Your task to perform on an android device: open a bookmark in the chrome app Image 0: 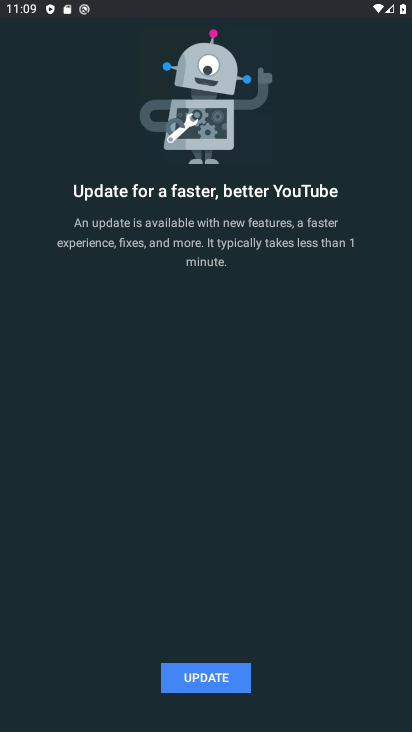
Step 0: press back button
Your task to perform on an android device: open a bookmark in the chrome app Image 1: 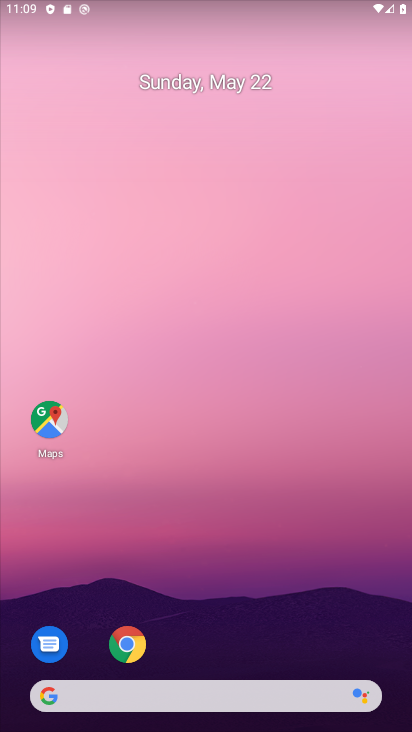
Step 1: drag from (346, 617) to (260, 101)
Your task to perform on an android device: open a bookmark in the chrome app Image 2: 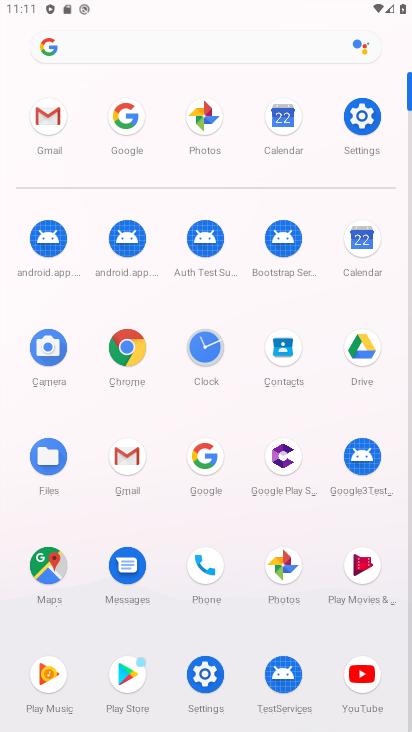
Step 2: click (131, 354)
Your task to perform on an android device: open a bookmark in the chrome app Image 3: 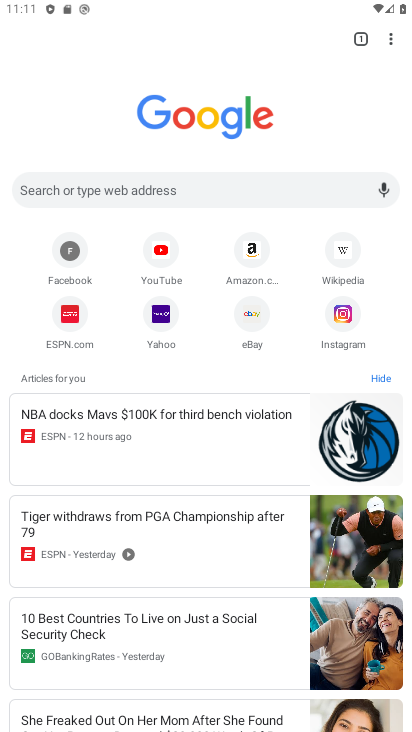
Step 3: click (391, 34)
Your task to perform on an android device: open a bookmark in the chrome app Image 4: 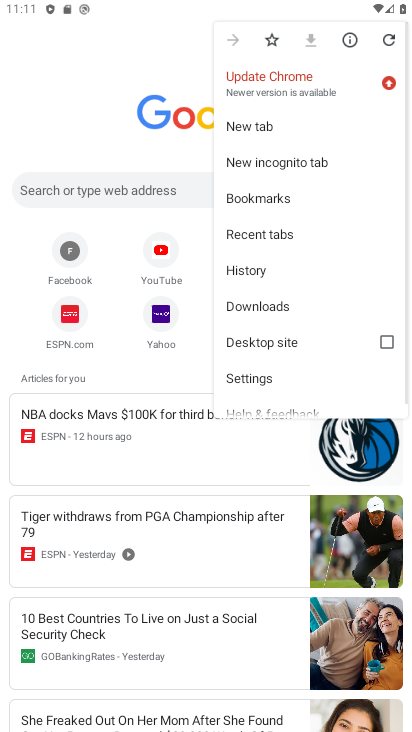
Step 4: click (251, 211)
Your task to perform on an android device: open a bookmark in the chrome app Image 5: 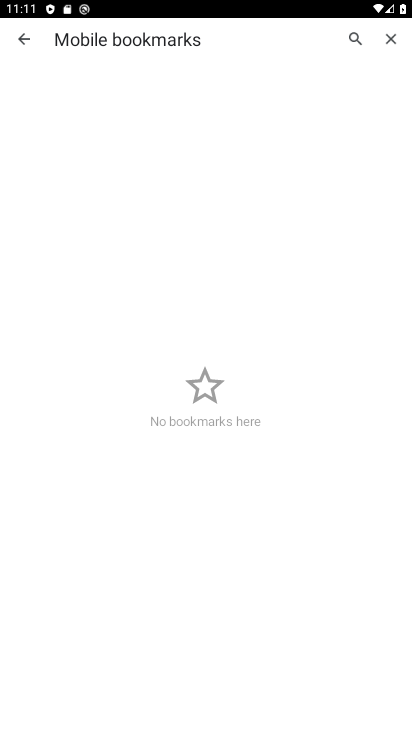
Step 5: task complete